Your task to perform on an android device: toggle pop-ups in chrome Image 0: 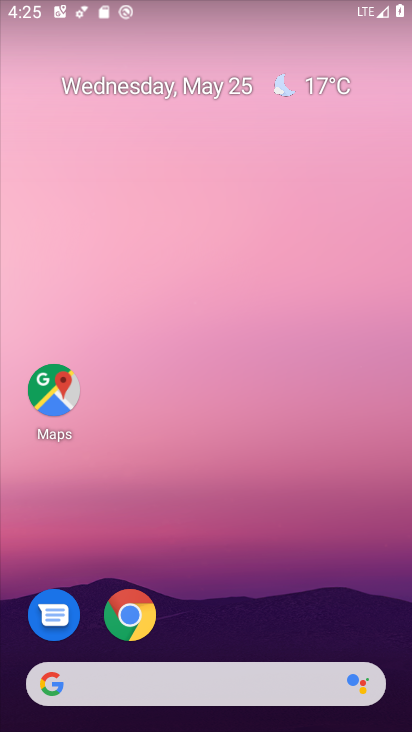
Step 0: click (197, 49)
Your task to perform on an android device: toggle pop-ups in chrome Image 1: 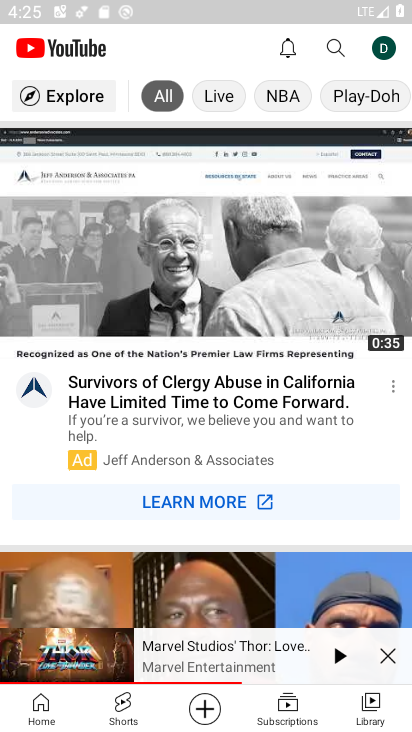
Step 1: press home button
Your task to perform on an android device: toggle pop-ups in chrome Image 2: 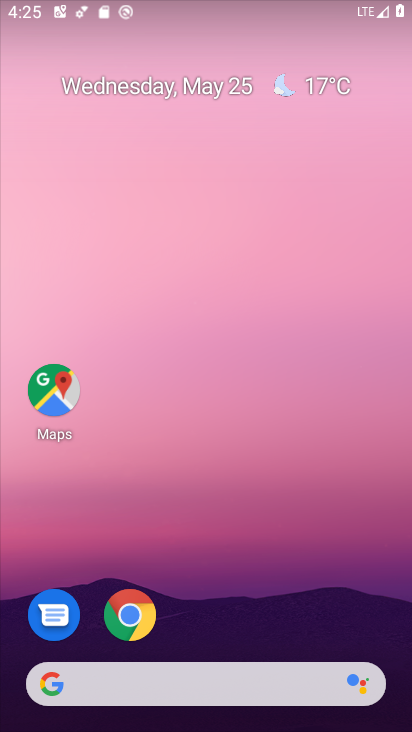
Step 2: click (130, 621)
Your task to perform on an android device: toggle pop-ups in chrome Image 3: 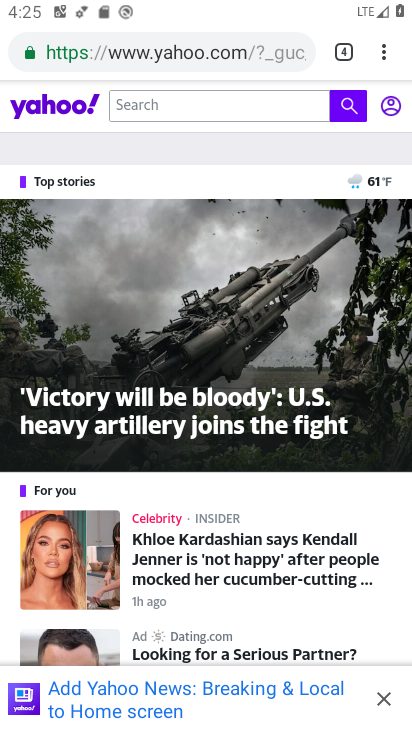
Step 3: click (380, 55)
Your task to perform on an android device: toggle pop-ups in chrome Image 4: 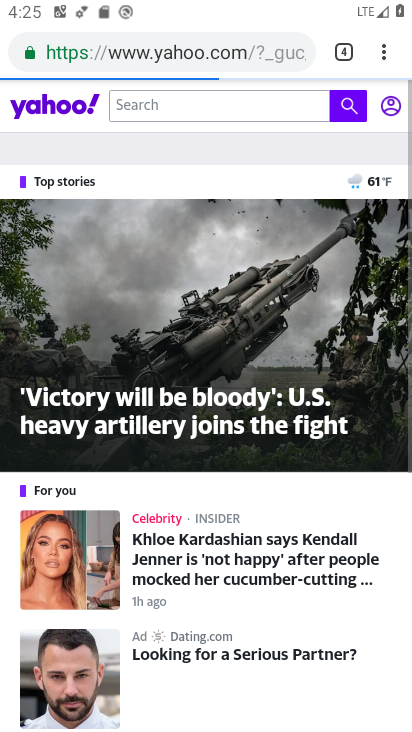
Step 4: click (377, 49)
Your task to perform on an android device: toggle pop-ups in chrome Image 5: 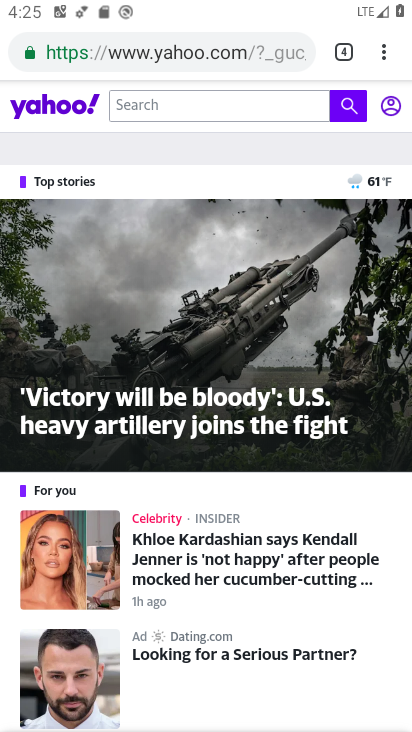
Step 5: click (377, 53)
Your task to perform on an android device: toggle pop-ups in chrome Image 6: 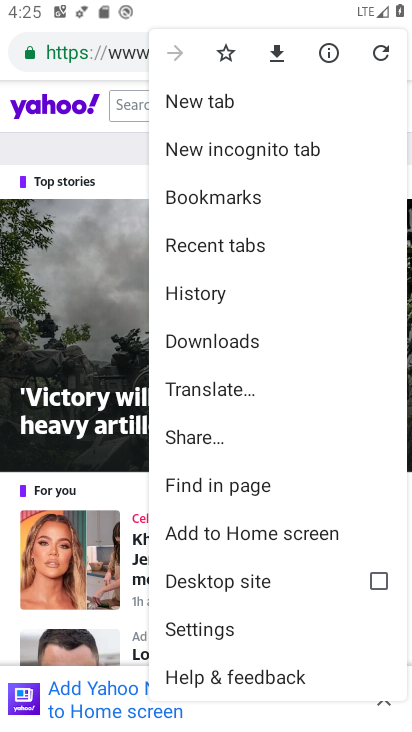
Step 6: click (255, 604)
Your task to perform on an android device: toggle pop-ups in chrome Image 7: 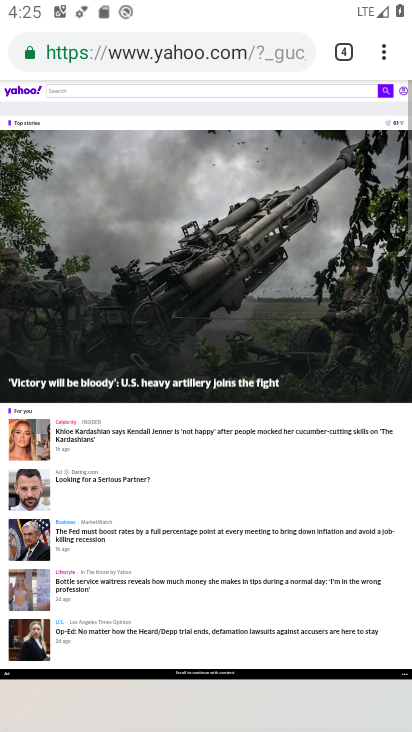
Step 7: press back button
Your task to perform on an android device: toggle pop-ups in chrome Image 8: 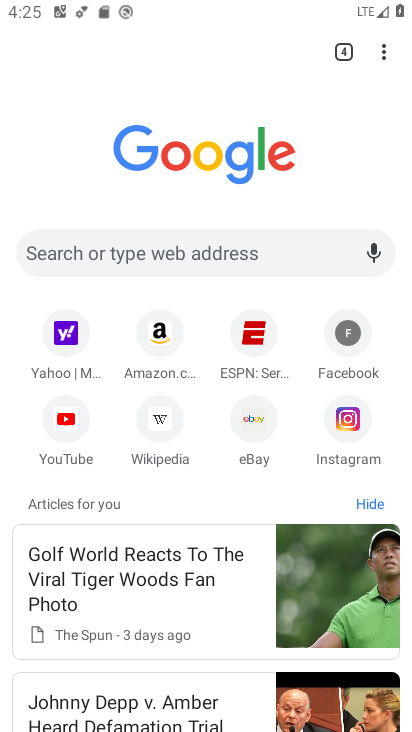
Step 8: click (382, 47)
Your task to perform on an android device: toggle pop-ups in chrome Image 9: 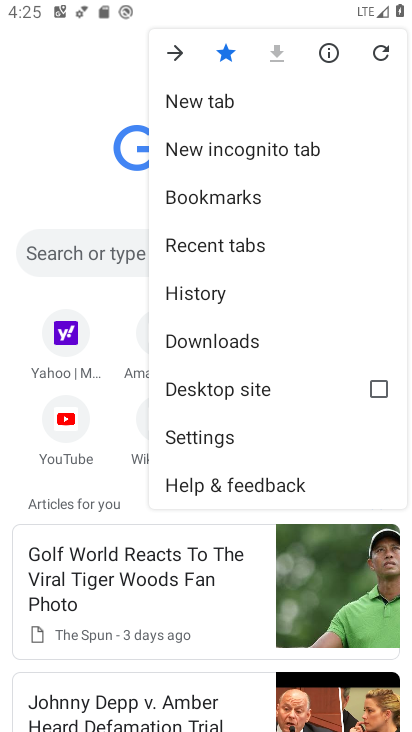
Step 9: click (226, 423)
Your task to perform on an android device: toggle pop-ups in chrome Image 10: 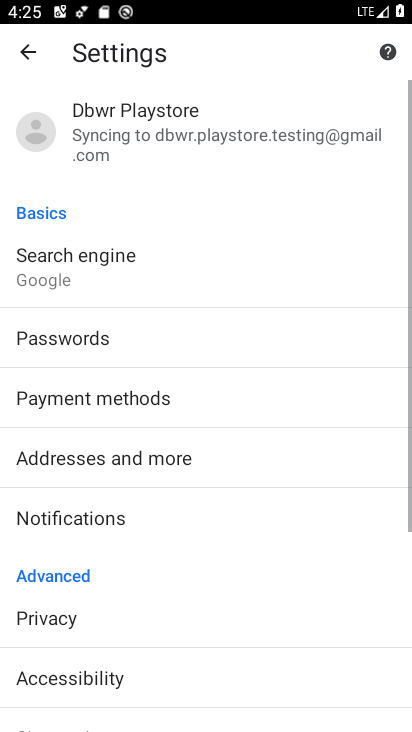
Step 10: drag from (226, 591) to (256, 128)
Your task to perform on an android device: toggle pop-ups in chrome Image 11: 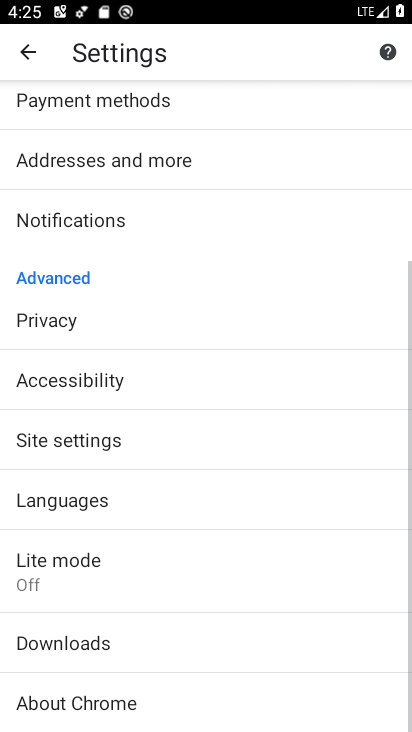
Step 11: click (168, 438)
Your task to perform on an android device: toggle pop-ups in chrome Image 12: 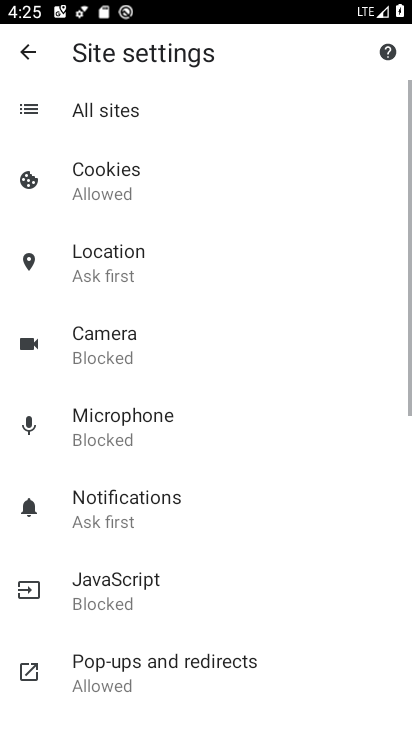
Step 12: click (165, 663)
Your task to perform on an android device: toggle pop-ups in chrome Image 13: 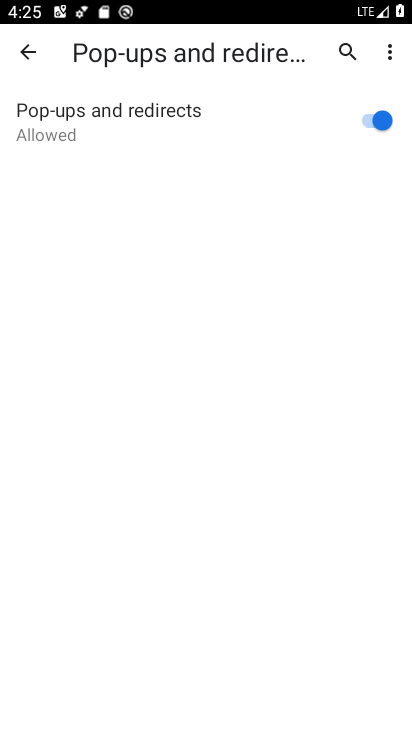
Step 13: click (369, 110)
Your task to perform on an android device: toggle pop-ups in chrome Image 14: 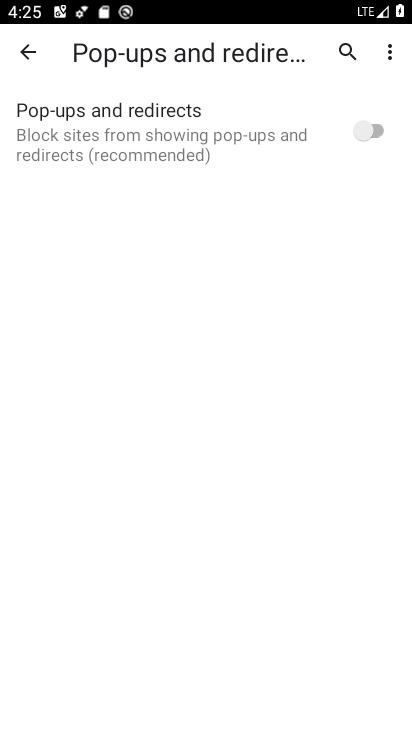
Step 14: task complete